Your task to perform on an android device: open sync settings in chrome Image 0: 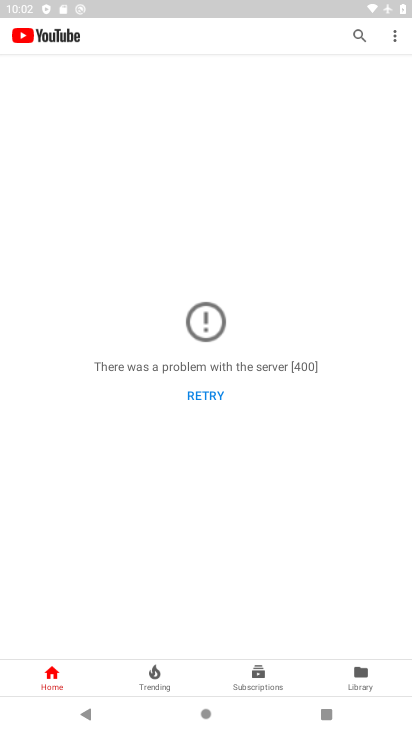
Step 0: press home button
Your task to perform on an android device: open sync settings in chrome Image 1: 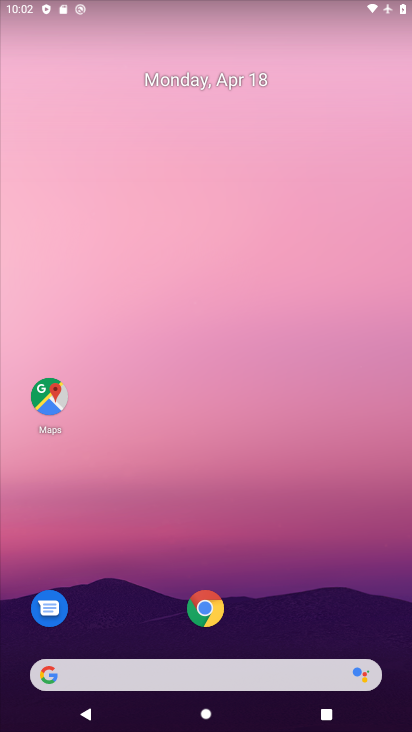
Step 1: click (229, 611)
Your task to perform on an android device: open sync settings in chrome Image 2: 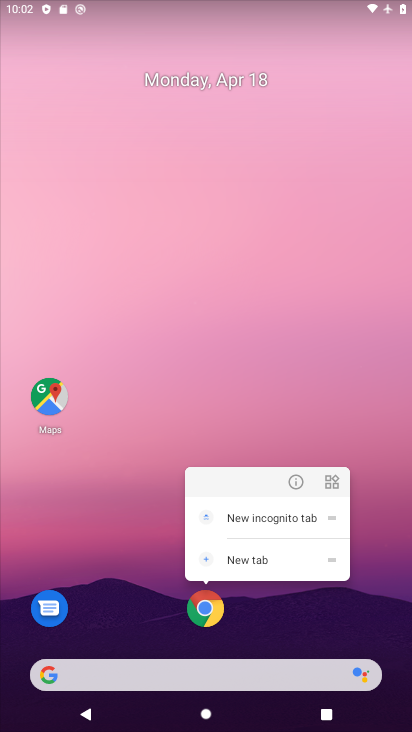
Step 2: click (212, 614)
Your task to perform on an android device: open sync settings in chrome Image 3: 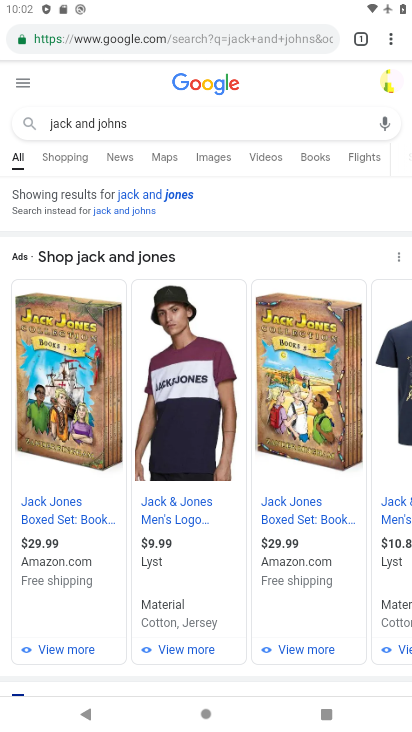
Step 3: click (391, 40)
Your task to perform on an android device: open sync settings in chrome Image 4: 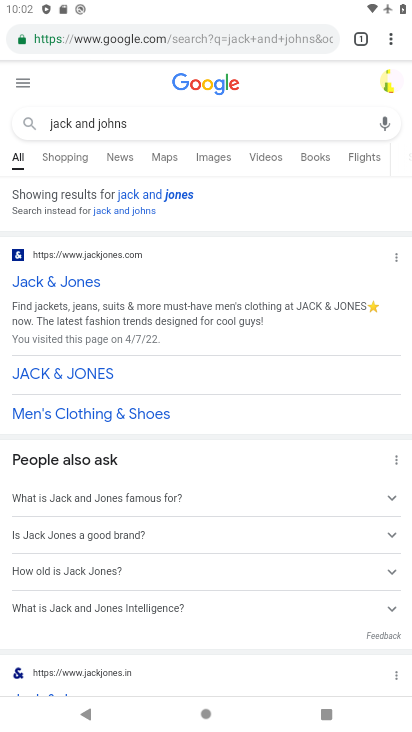
Step 4: drag from (387, 39) to (257, 434)
Your task to perform on an android device: open sync settings in chrome Image 5: 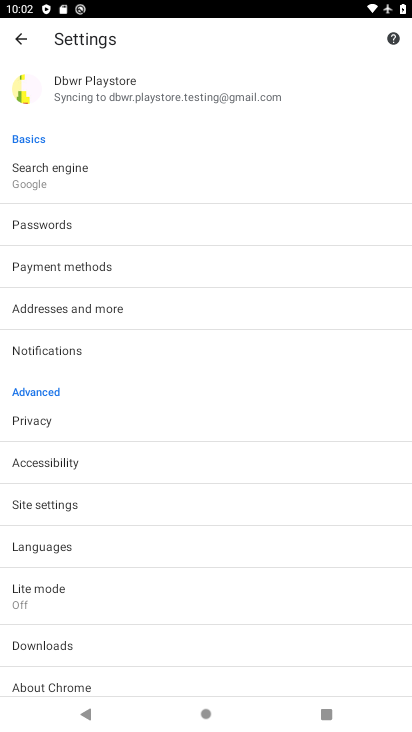
Step 5: click (62, 506)
Your task to perform on an android device: open sync settings in chrome Image 6: 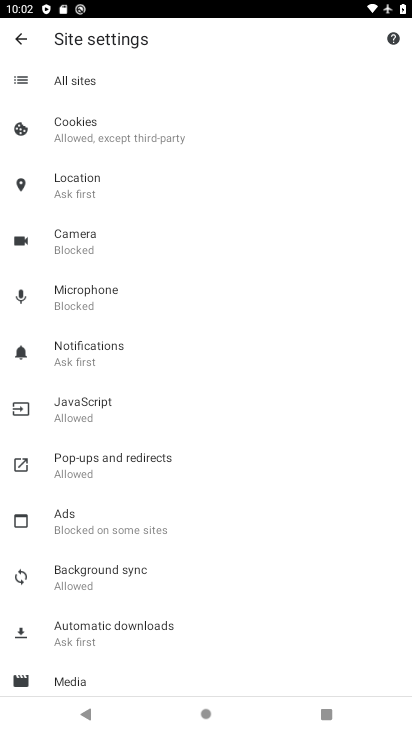
Step 6: click (116, 580)
Your task to perform on an android device: open sync settings in chrome Image 7: 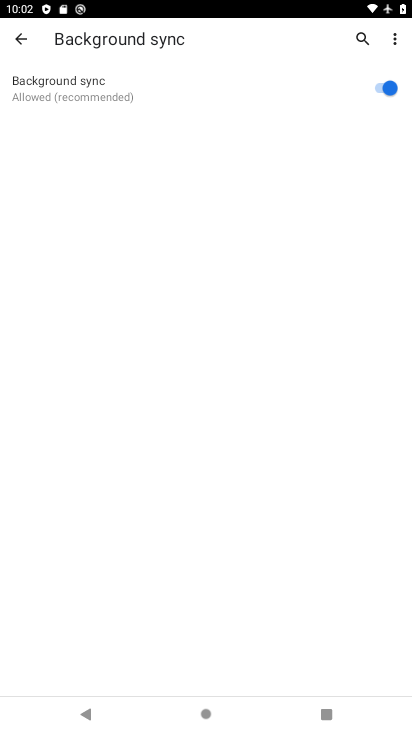
Step 7: task complete